Your task to perform on an android device: stop showing notifications on the lock screen Image 0: 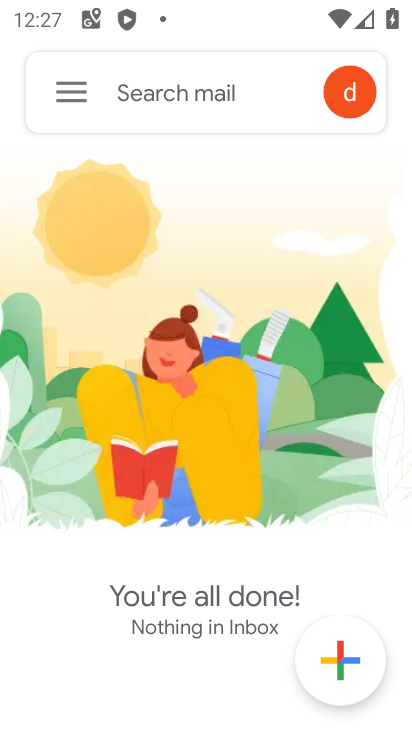
Step 0: press home button
Your task to perform on an android device: stop showing notifications on the lock screen Image 1: 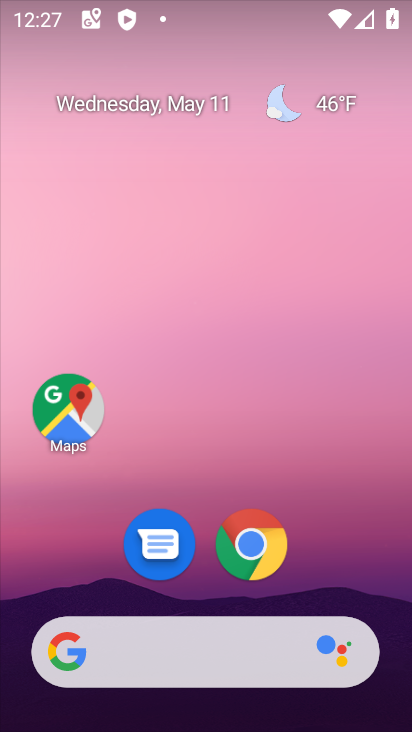
Step 1: drag from (366, 598) to (245, 128)
Your task to perform on an android device: stop showing notifications on the lock screen Image 2: 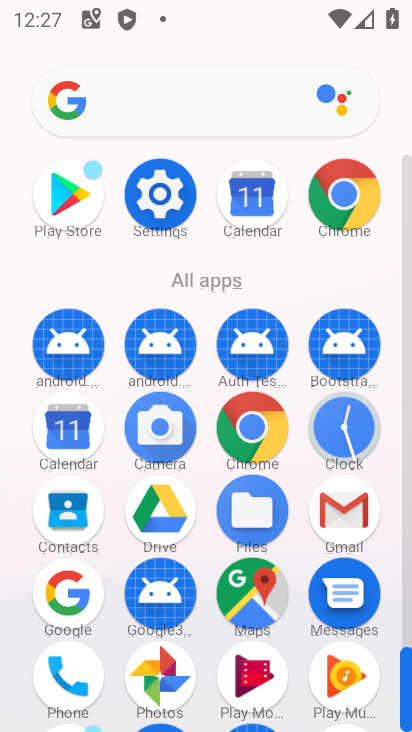
Step 2: drag from (407, 637) to (408, 586)
Your task to perform on an android device: stop showing notifications on the lock screen Image 3: 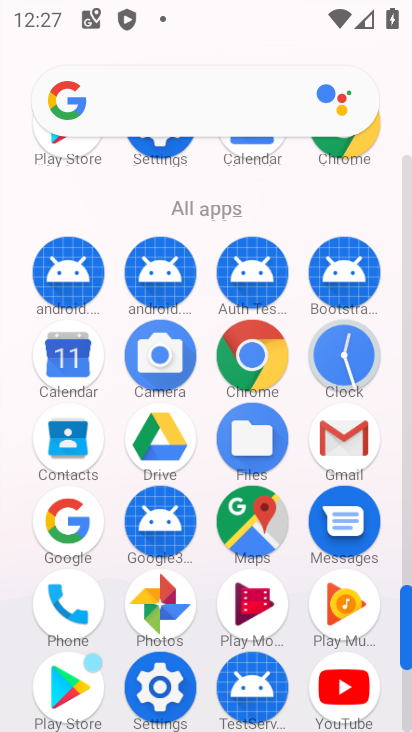
Step 3: click (158, 684)
Your task to perform on an android device: stop showing notifications on the lock screen Image 4: 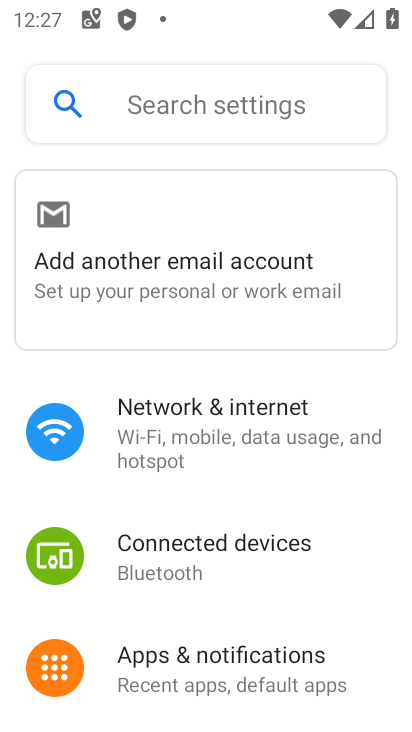
Step 4: click (192, 668)
Your task to perform on an android device: stop showing notifications on the lock screen Image 5: 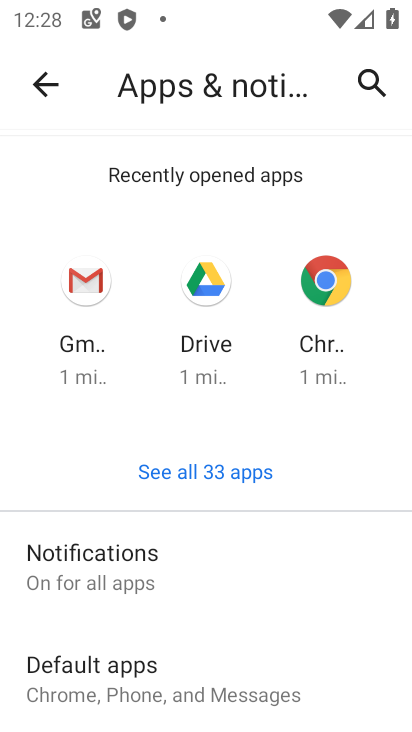
Step 5: drag from (335, 668) to (319, 347)
Your task to perform on an android device: stop showing notifications on the lock screen Image 6: 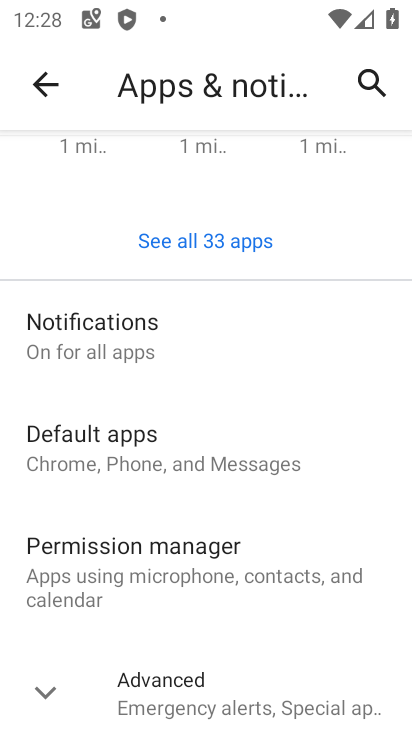
Step 6: click (70, 333)
Your task to perform on an android device: stop showing notifications on the lock screen Image 7: 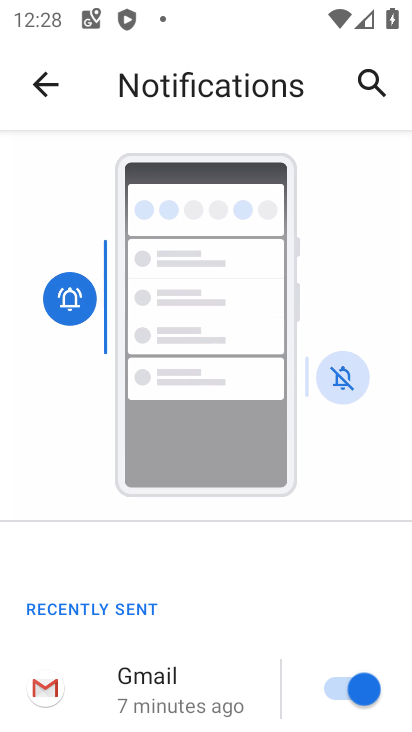
Step 7: drag from (281, 668) to (220, 190)
Your task to perform on an android device: stop showing notifications on the lock screen Image 8: 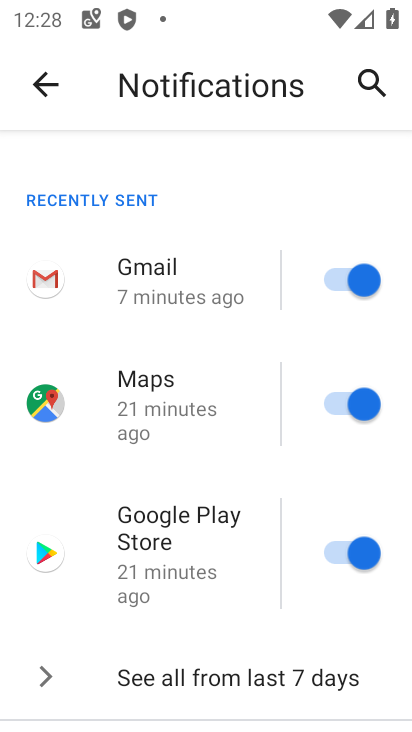
Step 8: drag from (279, 688) to (268, 318)
Your task to perform on an android device: stop showing notifications on the lock screen Image 9: 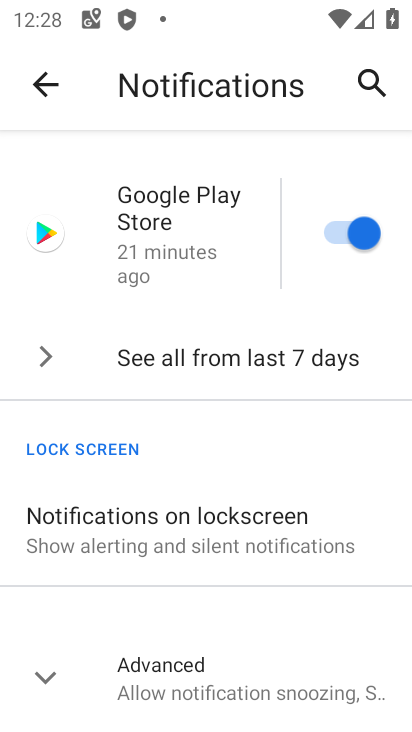
Step 9: click (105, 534)
Your task to perform on an android device: stop showing notifications on the lock screen Image 10: 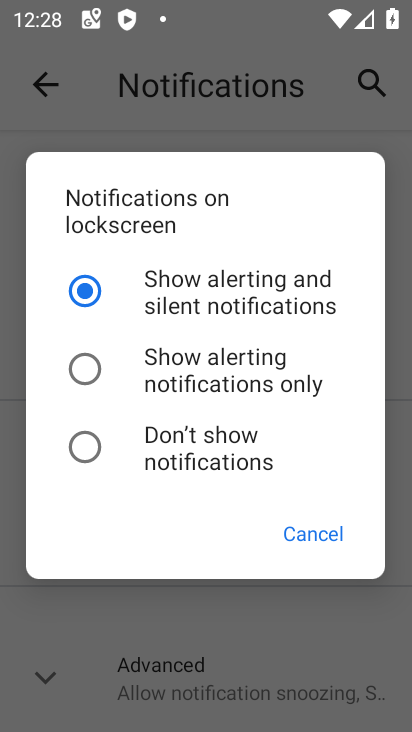
Step 10: click (79, 453)
Your task to perform on an android device: stop showing notifications on the lock screen Image 11: 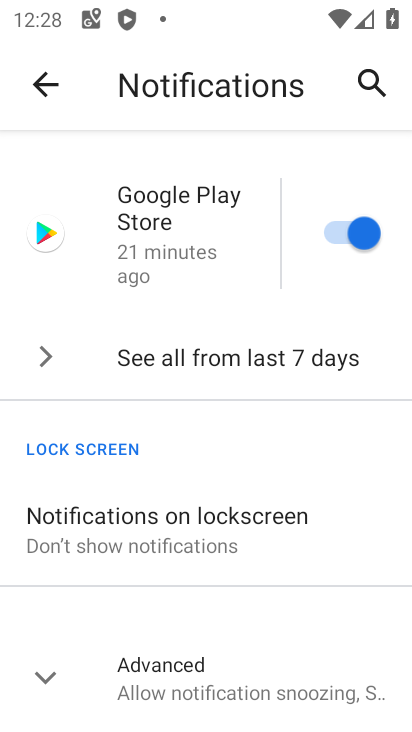
Step 11: task complete